Your task to perform on an android device: check data usage Image 0: 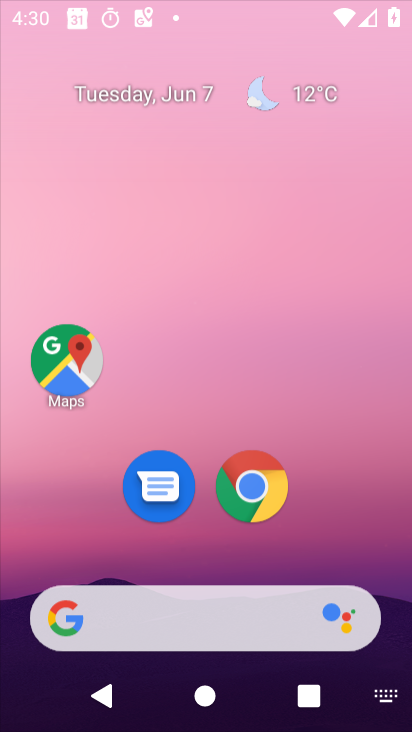
Step 0: click (275, 34)
Your task to perform on an android device: check data usage Image 1: 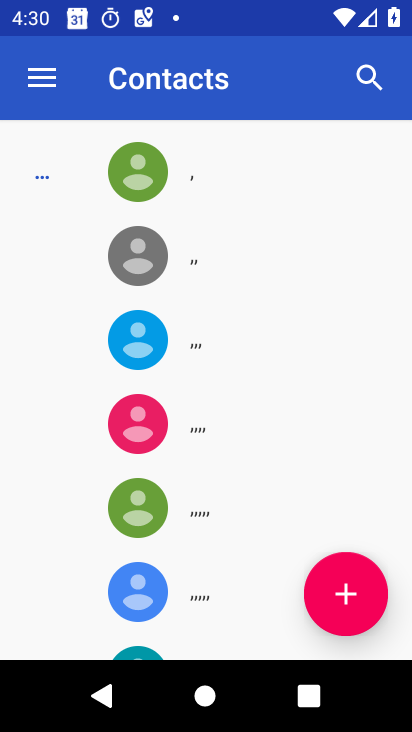
Step 1: press back button
Your task to perform on an android device: check data usage Image 2: 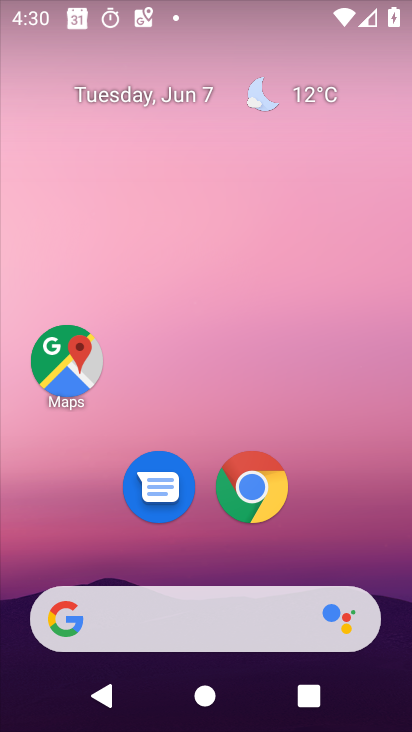
Step 2: drag from (188, 516) to (314, 7)
Your task to perform on an android device: check data usage Image 3: 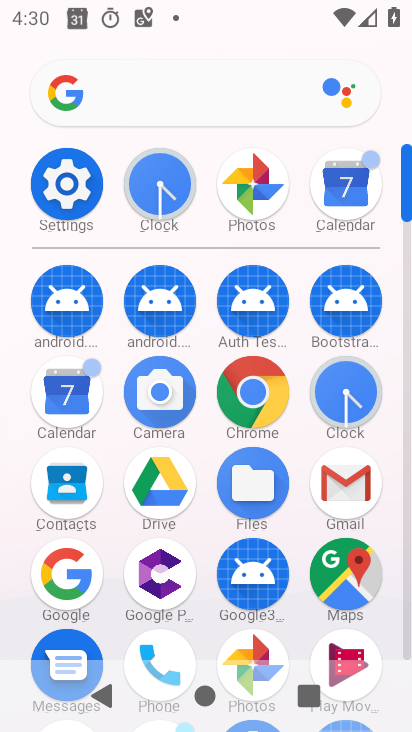
Step 3: click (67, 185)
Your task to perform on an android device: check data usage Image 4: 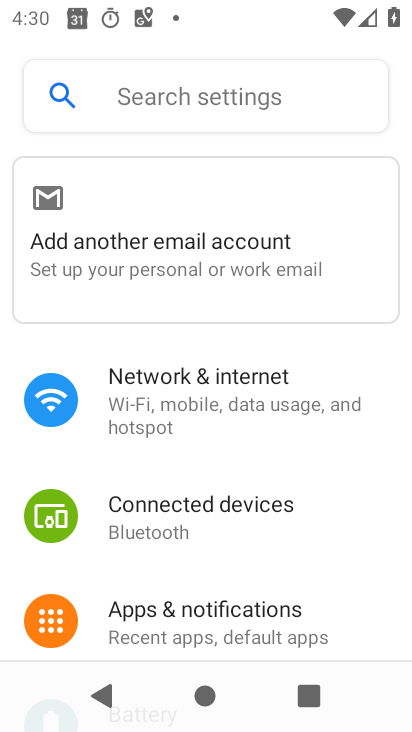
Step 4: click (218, 410)
Your task to perform on an android device: check data usage Image 5: 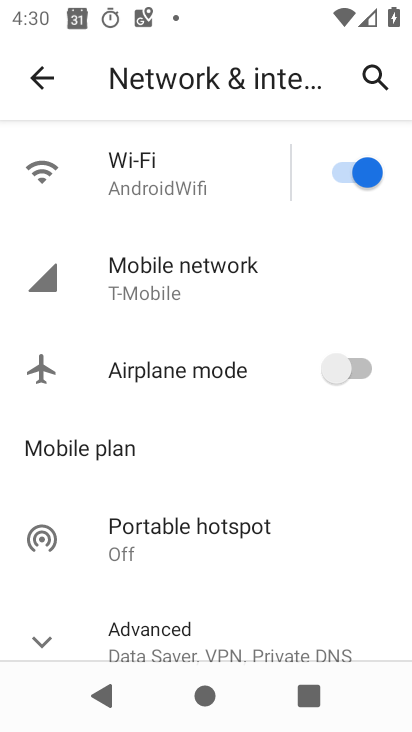
Step 5: drag from (167, 587) to (219, 370)
Your task to perform on an android device: check data usage Image 6: 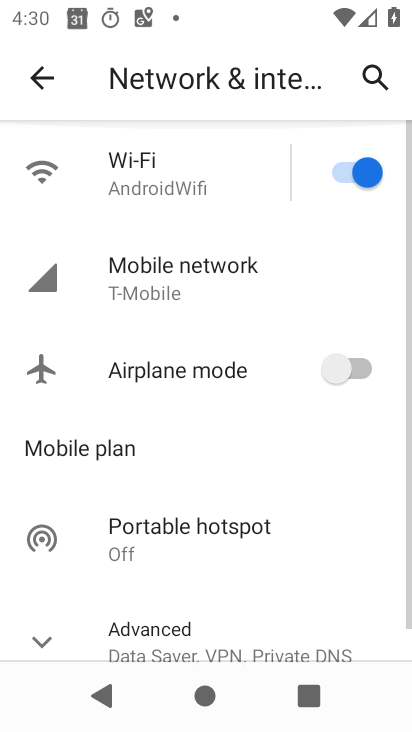
Step 6: click (170, 277)
Your task to perform on an android device: check data usage Image 7: 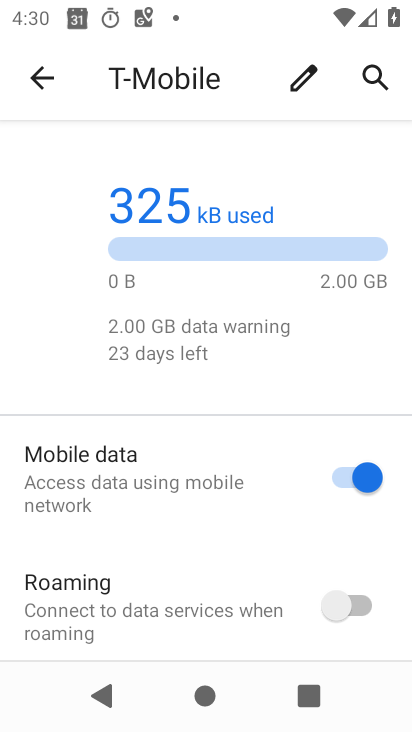
Step 7: drag from (171, 601) to (277, 148)
Your task to perform on an android device: check data usage Image 8: 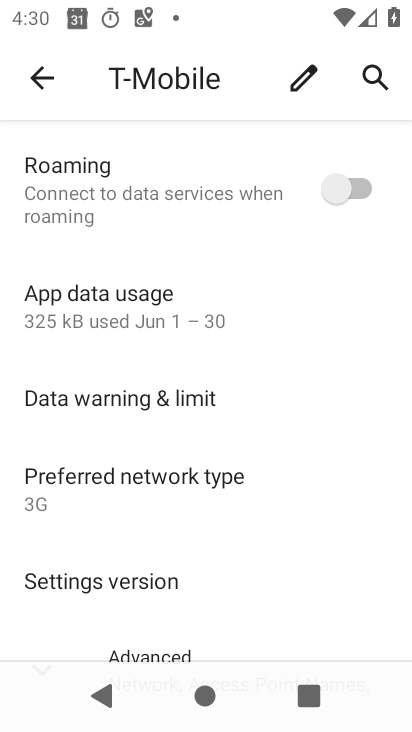
Step 8: click (94, 306)
Your task to perform on an android device: check data usage Image 9: 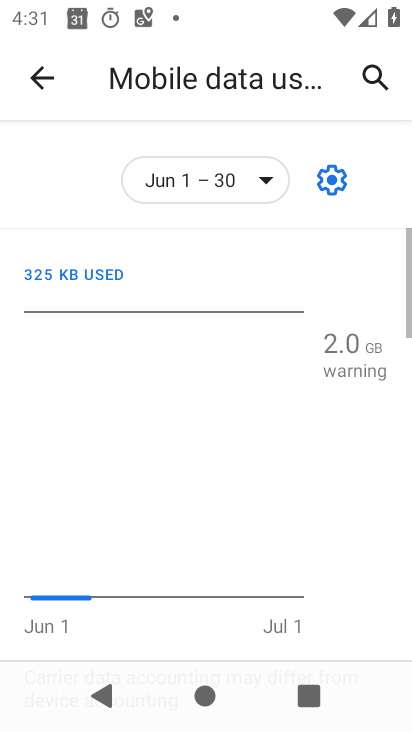
Step 9: task complete